Your task to perform on an android device: snooze an email in the gmail app Image 0: 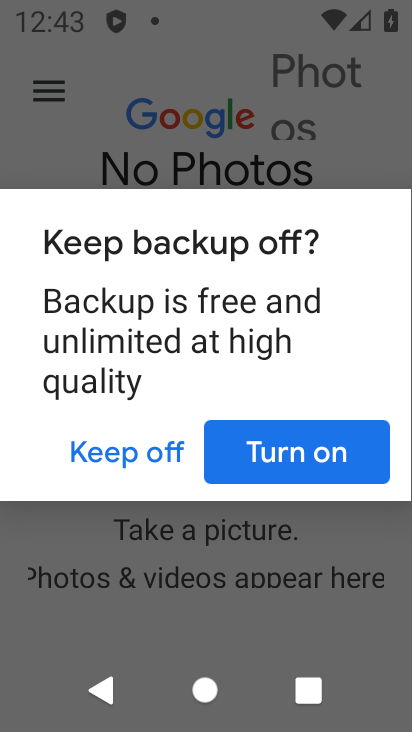
Step 0: press back button
Your task to perform on an android device: snooze an email in the gmail app Image 1: 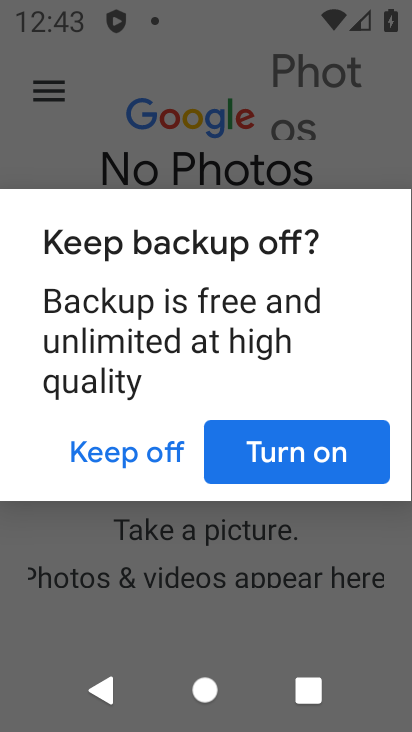
Step 1: press home button
Your task to perform on an android device: snooze an email in the gmail app Image 2: 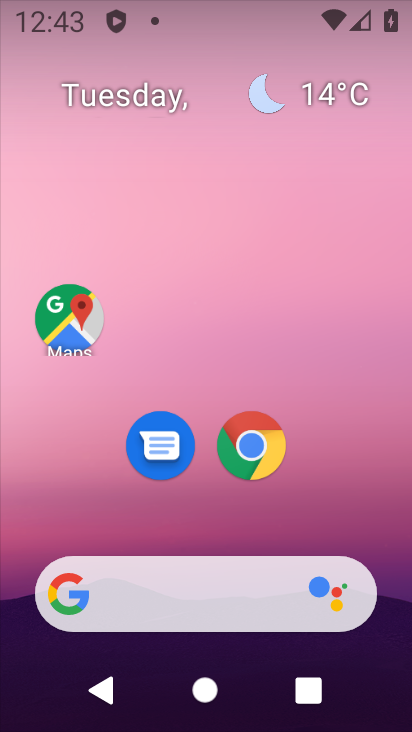
Step 2: drag from (405, 633) to (275, 52)
Your task to perform on an android device: snooze an email in the gmail app Image 3: 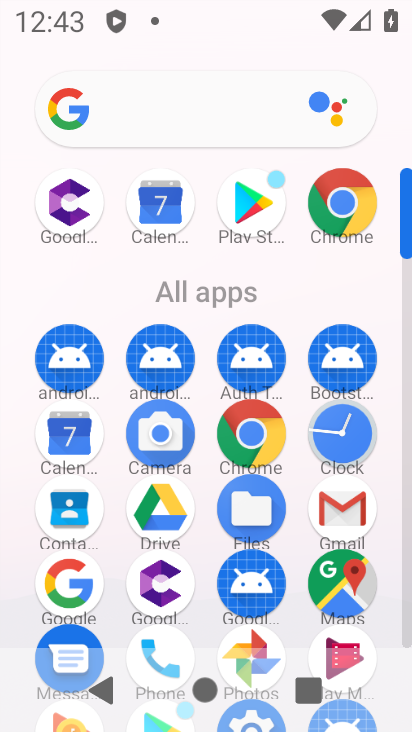
Step 3: click (338, 503)
Your task to perform on an android device: snooze an email in the gmail app Image 4: 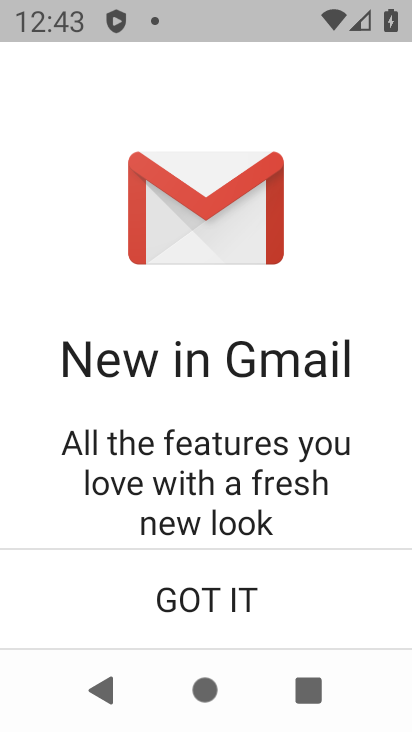
Step 4: click (204, 603)
Your task to perform on an android device: snooze an email in the gmail app Image 5: 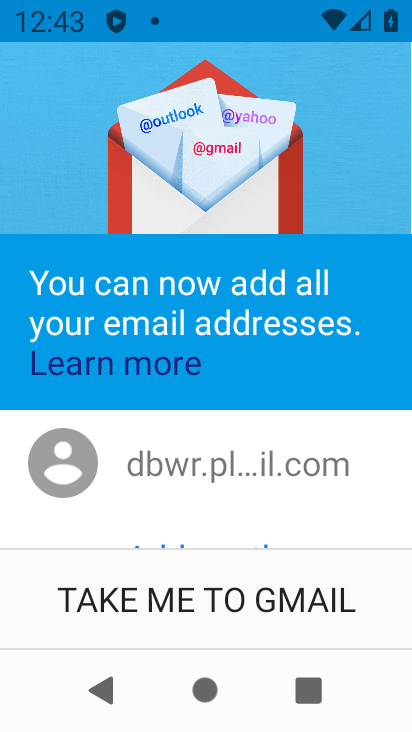
Step 5: click (257, 608)
Your task to perform on an android device: snooze an email in the gmail app Image 6: 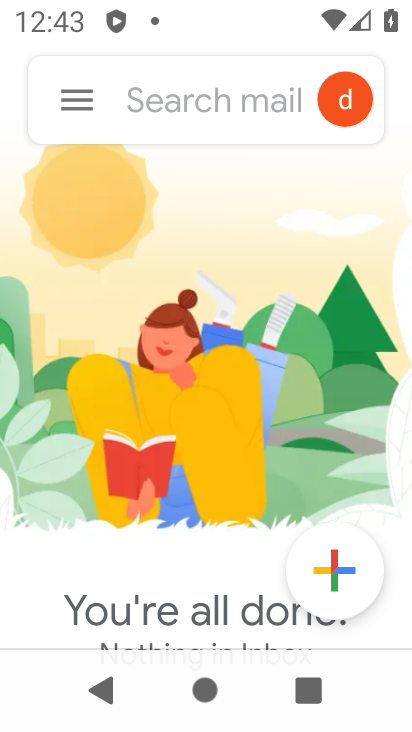
Step 6: click (86, 91)
Your task to perform on an android device: snooze an email in the gmail app Image 7: 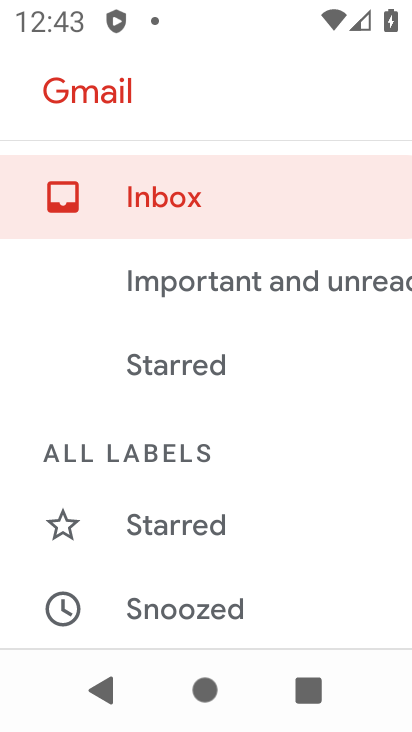
Step 7: click (218, 599)
Your task to perform on an android device: snooze an email in the gmail app Image 8: 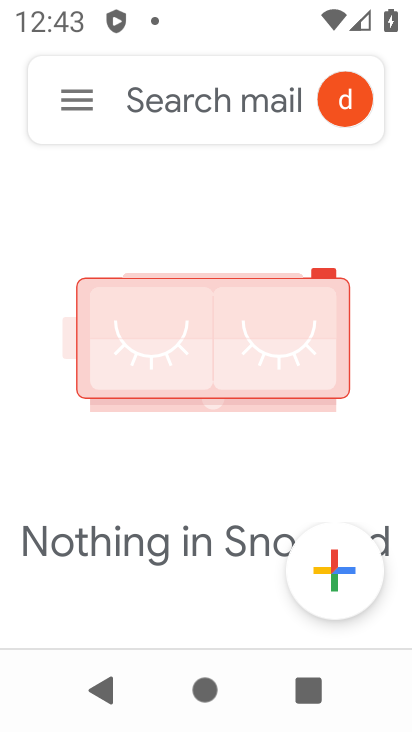
Step 8: task complete